Your task to perform on an android device: Check the weather Image 0: 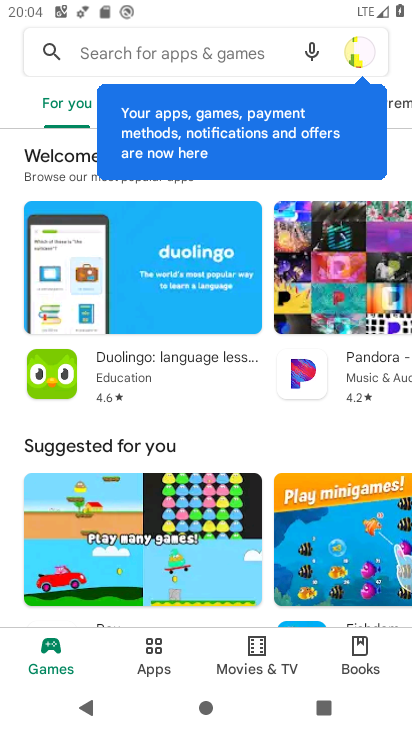
Step 0: press home button
Your task to perform on an android device: Check the weather Image 1: 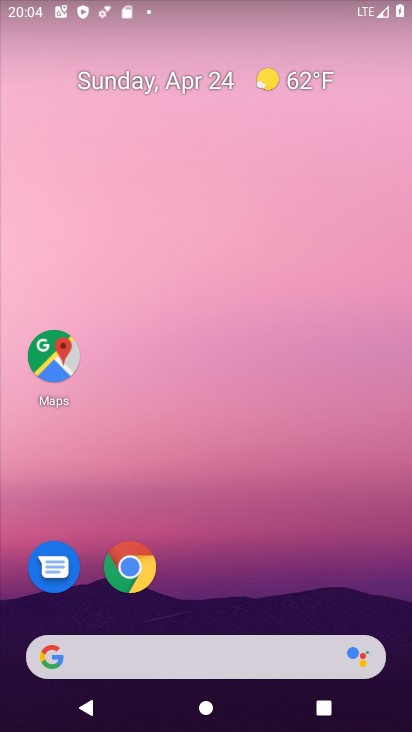
Step 1: drag from (227, 480) to (242, 47)
Your task to perform on an android device: Check the weather Image 2: 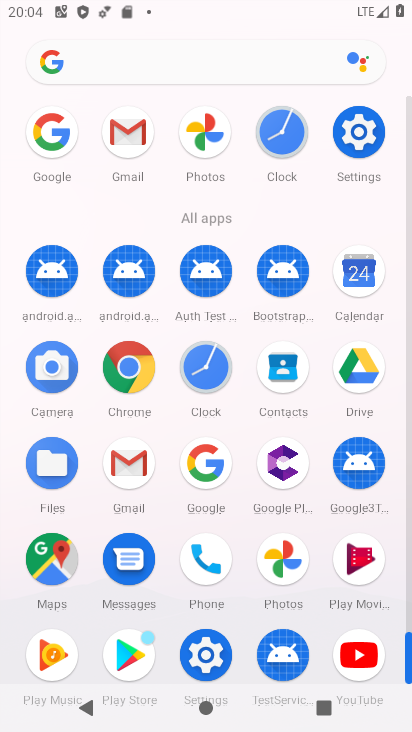
Step 2: click (47, 132)
Your task to perform on an android device: Check the weather Image 3: 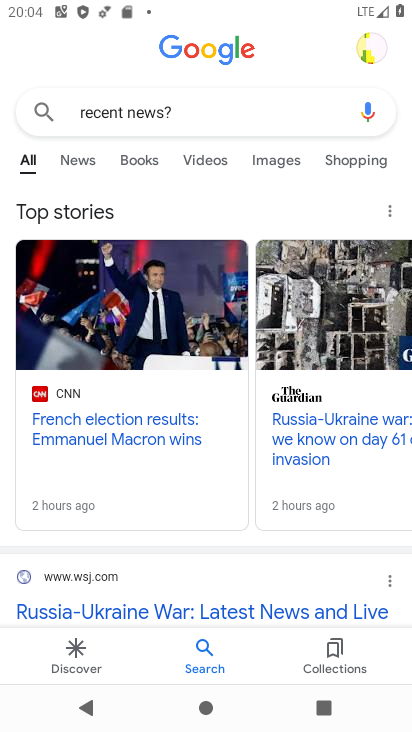
Step 3: click (206, 118)
Your task to perform on an android device: Check the weather Image 4: 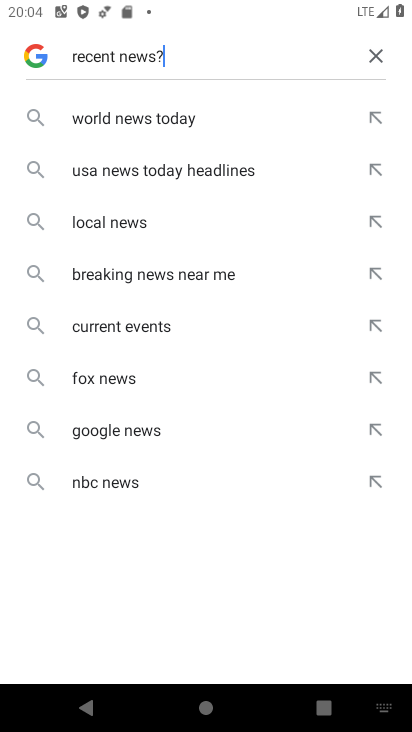
Step 4: click (375, 57)
Your task to perform on an android device: Check the weather Image 5: 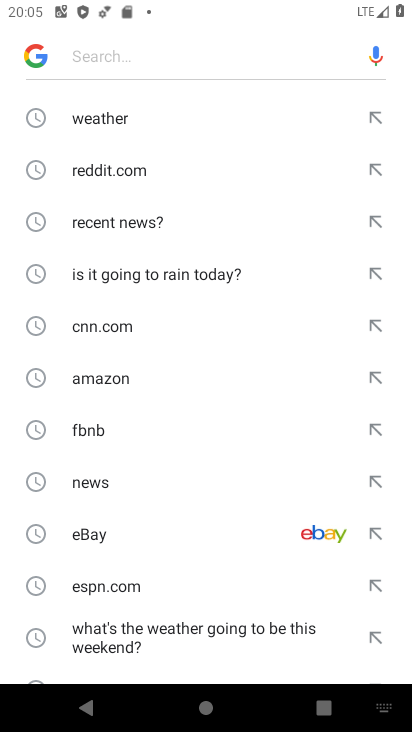
Step 5: click (118, 115)
Your task to perform on an android device: Check the weather Image 6: 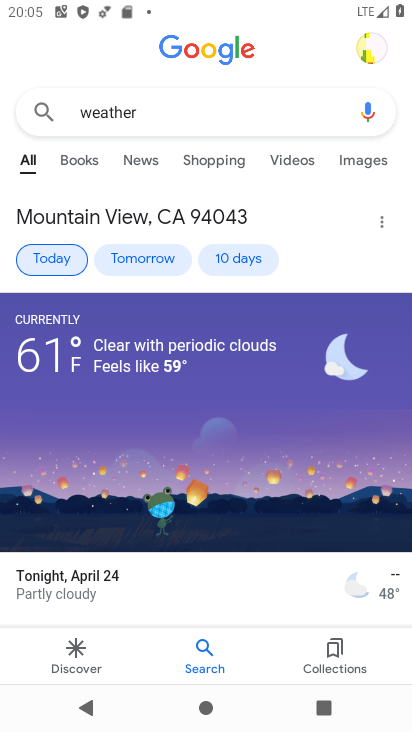
Step 6: task complete